Your task to perform on an android device: turn off location Image 0: 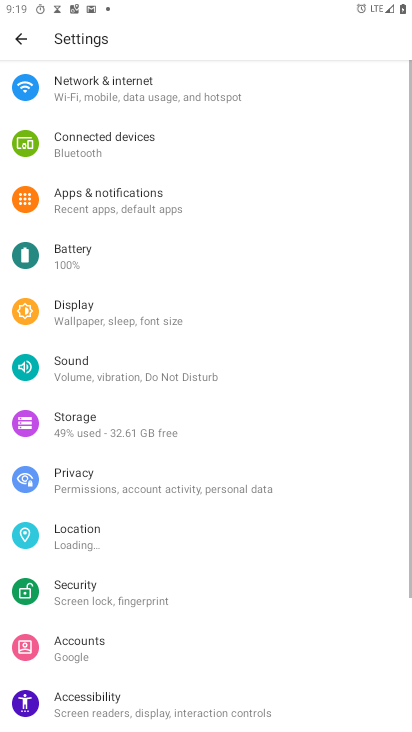
Step 0: press home button
Your task to perform on an android device: turn off location Image 1: 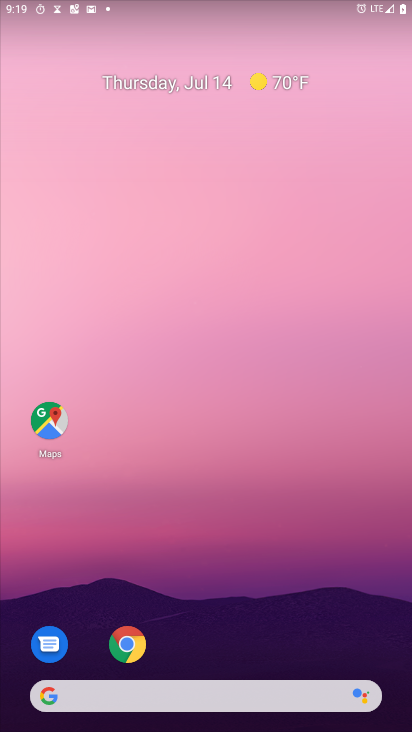
Step 1: drag from (176, 694) to (312, 256)
Your task to perform on an android device: turn off location Image 2: 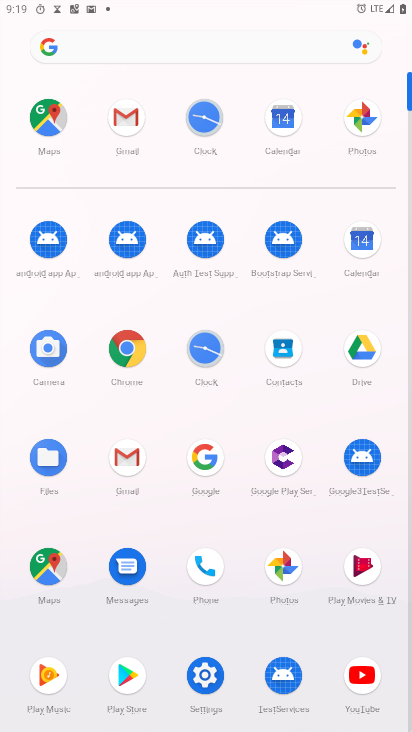
Step 2: click (209, 680)
Your task to perform on an android device: turn off location Image 3: 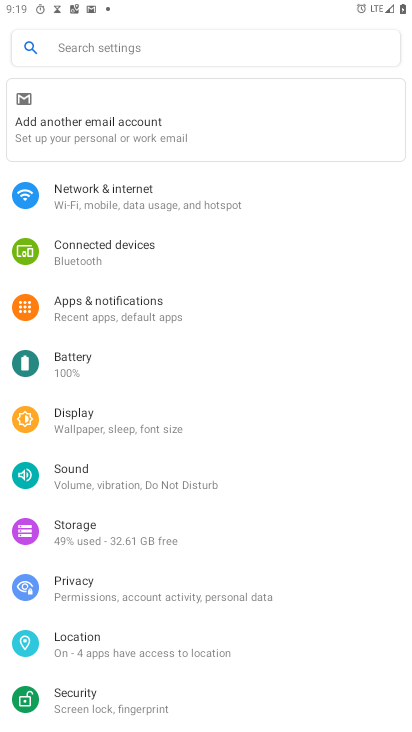
Step 3: click (91, 646)
Your task to perform on an android device: turn off location Image 4: 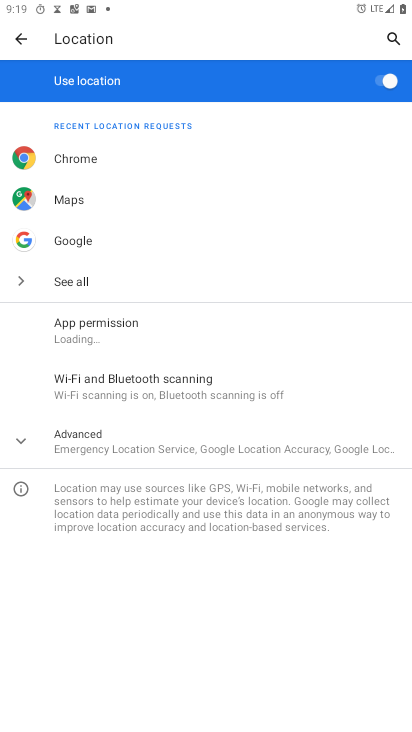
Step 4: click (382, 80)
Your task to perform on an android device: turn off location Image 5: 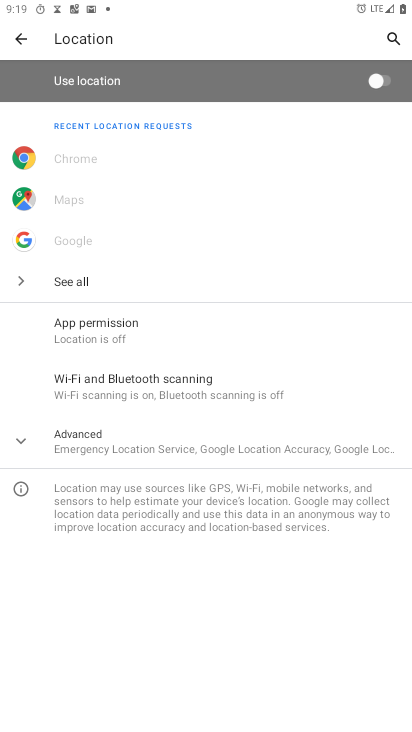
Step 5: task complete